Your task to perform on an android device: toggle improve location accuracy Image 0: 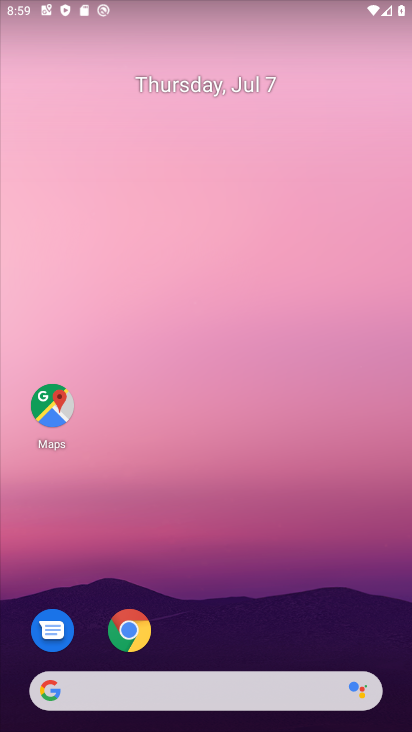
Step 0: drag from (206, 635) to (213, 128)
Your task to perform on an android device: toggle improve location accuracy Image 1: 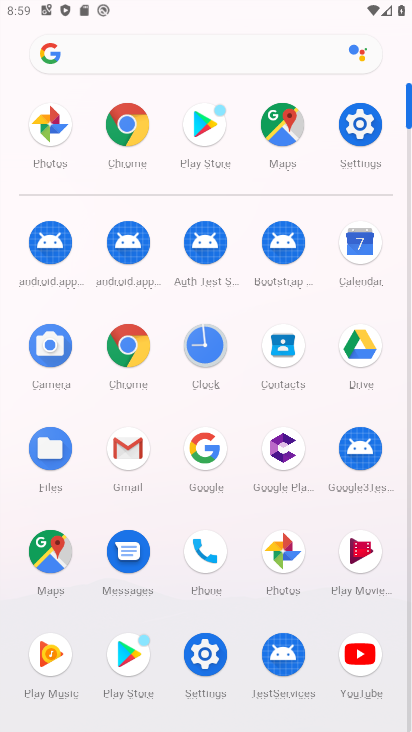
Step 1: click (378, 144)
Your task to perform on an android device: toggle improve location accuracy Image 2: 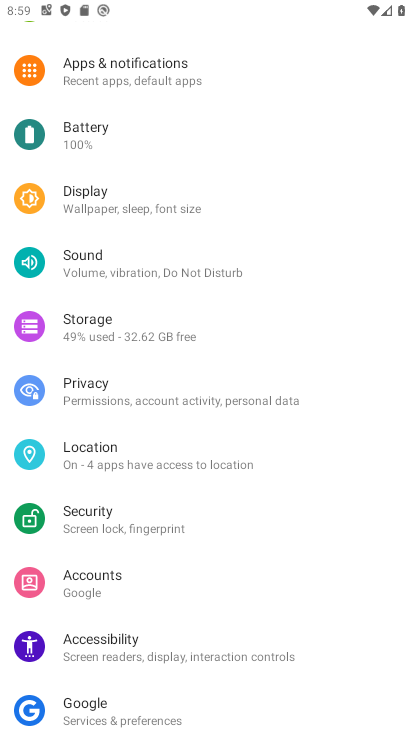
Step 2: click (140, 470)
Your task to perform on an android device: toggle improve location accuracy Image 3: 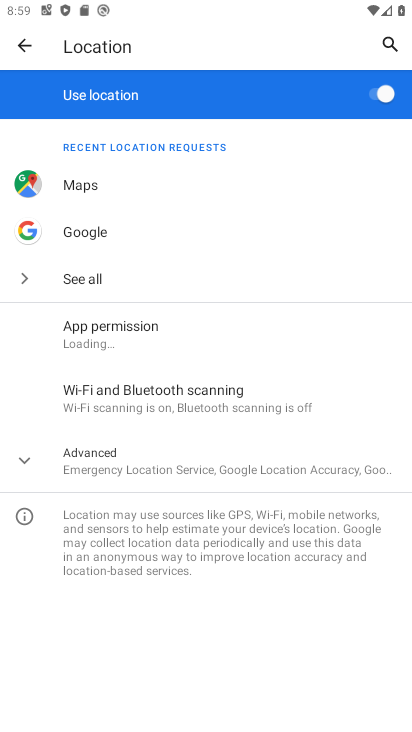
Step 3: click (139, 451)
Your task to perform on an android device: toggle improve location accuracy Image 4: 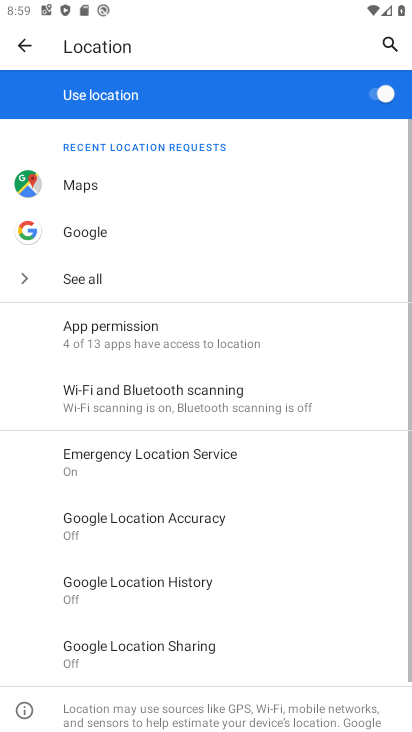
Step 4: click (175, 509)
Your task to perform on an android device: toggle improve location accuracy Image 5: 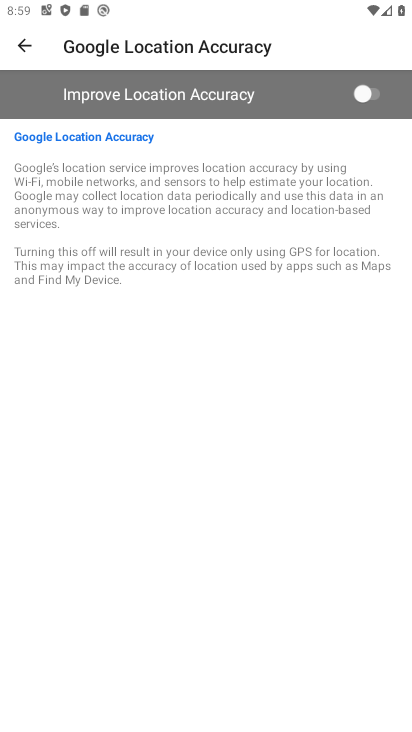
Step 5: click (369, 95)
Your task to perform on an android device: toggle improve location accuracy Image 6: 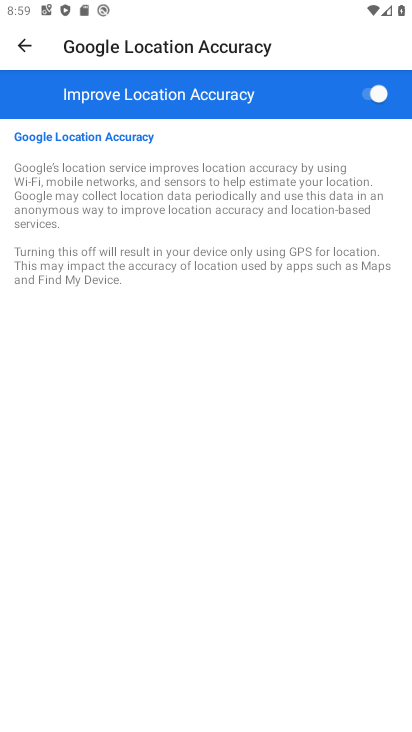
Step 6: task complete